Your task to perform on an android device: empty trash in google photos Image 0: 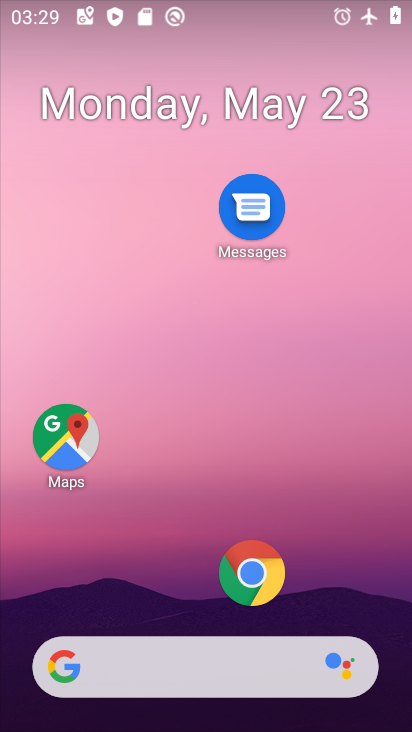
Step 0: drag from (285, 618) to (316, 0)
Your task to perform on an android device: empty trash in google photos Image 1: 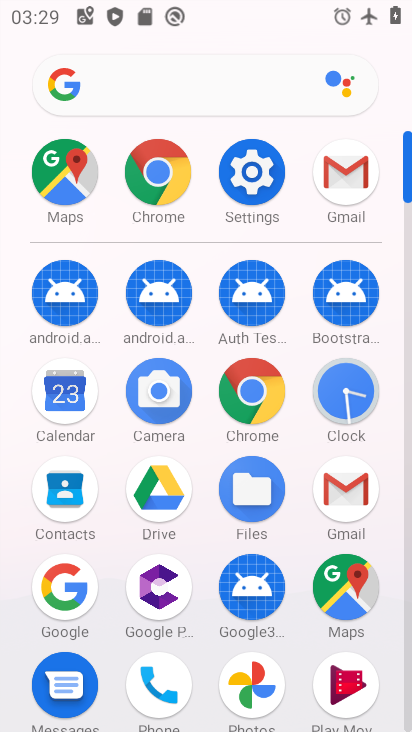
Step 1: click (260, 681)
Your task to perform on an android device: empty trash in google photos Image 2: 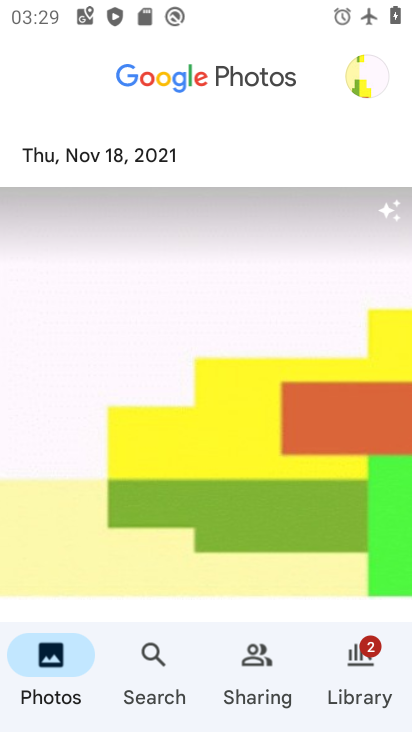
Step 2: click (373, 75)
Your task to perform on an android device: empty trash in google photos Image 3: 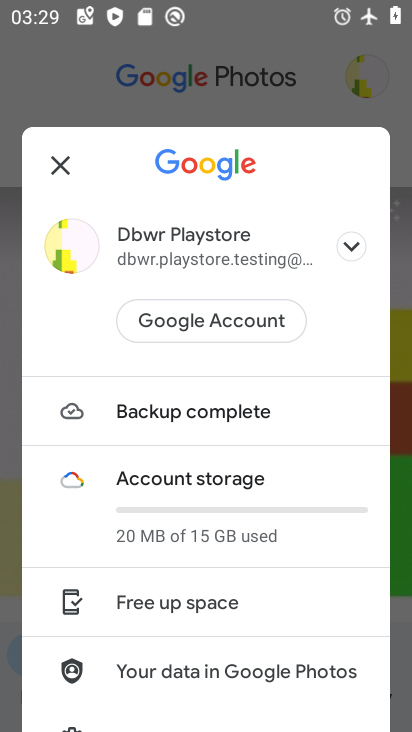
Step 3: click (63, 165)
Your task to perform on an android device: empty trash in google photos Image 4: 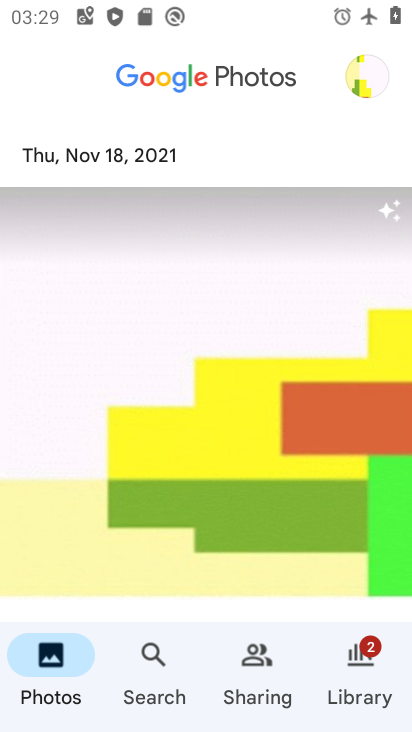
Step 4: click (360, 660)
Your task to perform on an android device: empty trash in google photos Image 5: 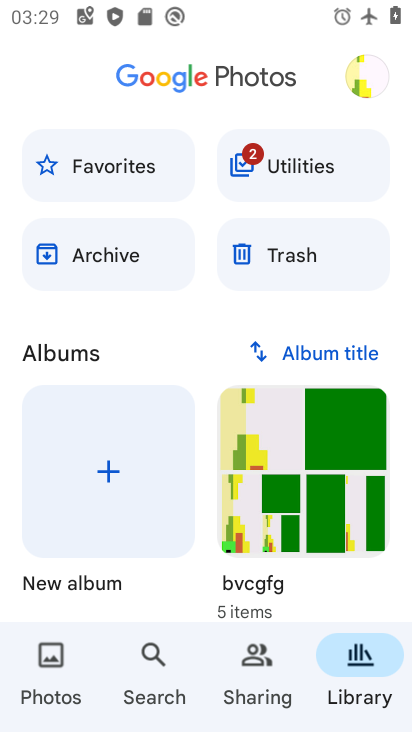
Step 5: click (269, 253)
Your task to perform on an android device: empty trash in google photos Image 6: 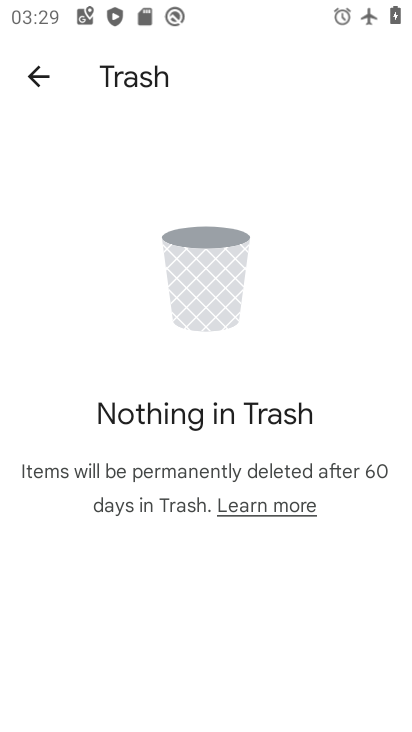
Step 6: task complete